Your task to perform on an android device: Show the shopping cart on ebay. Image 0: 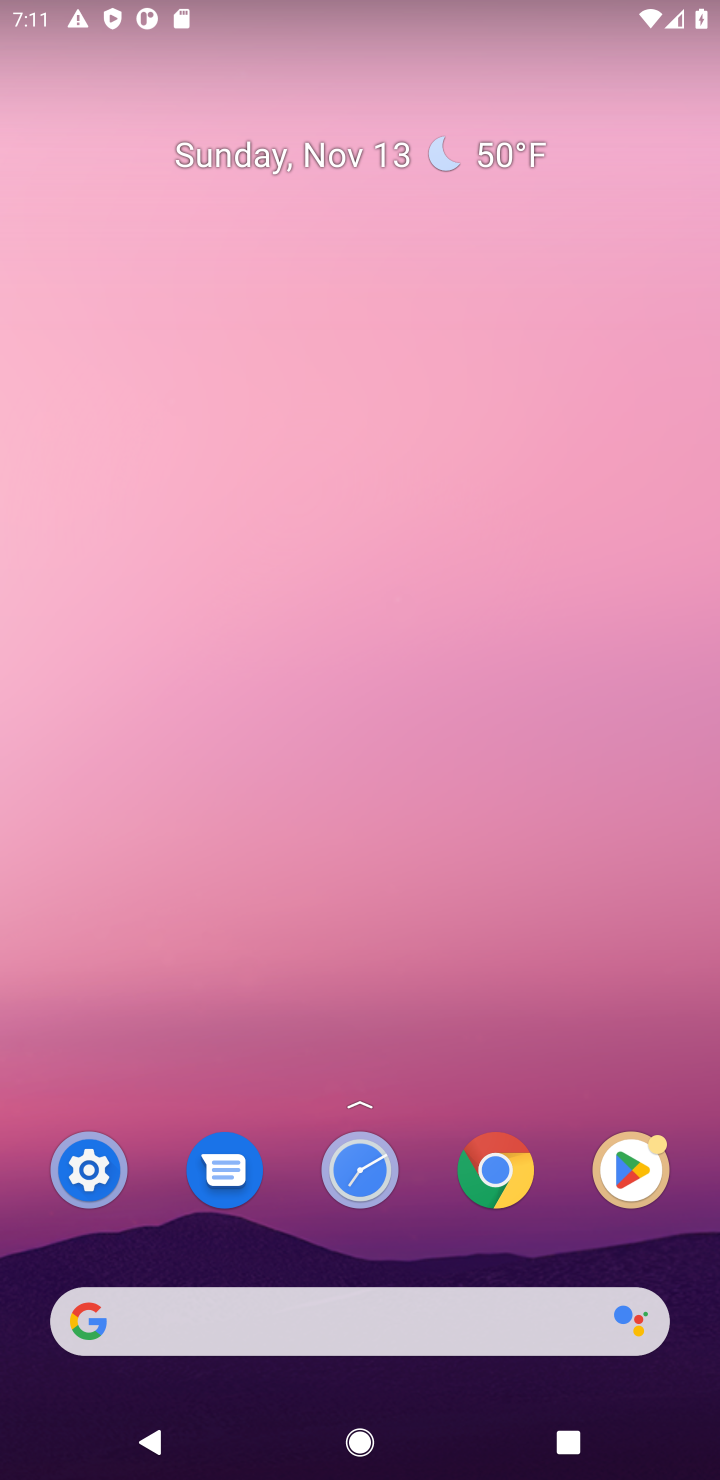
Step 0: click (252, 1293)
Your task to perform on an android device: Show the shopping cart on ebay. Image 1: 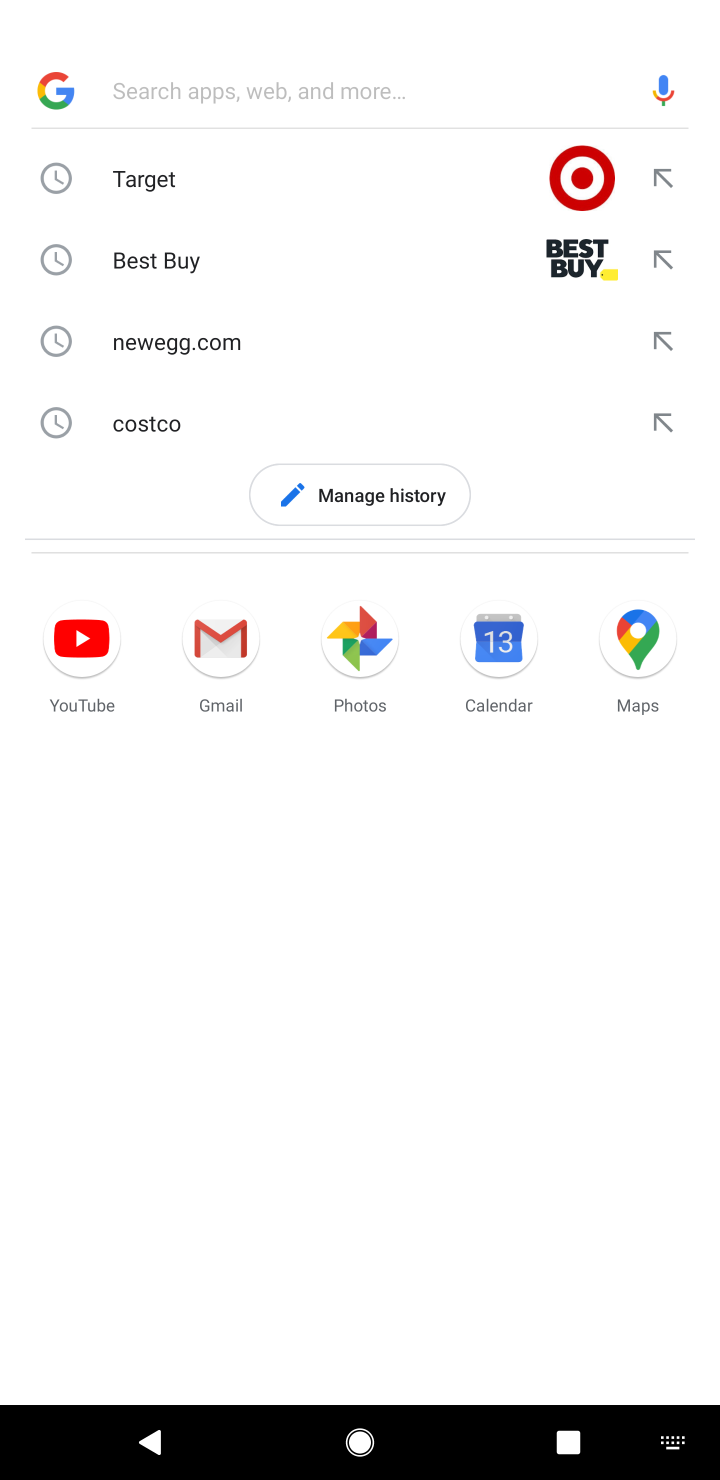
Step 1: type "ebay.com"
Your task to perform on an android device: Show the shopping cart on ebay. Image 2: 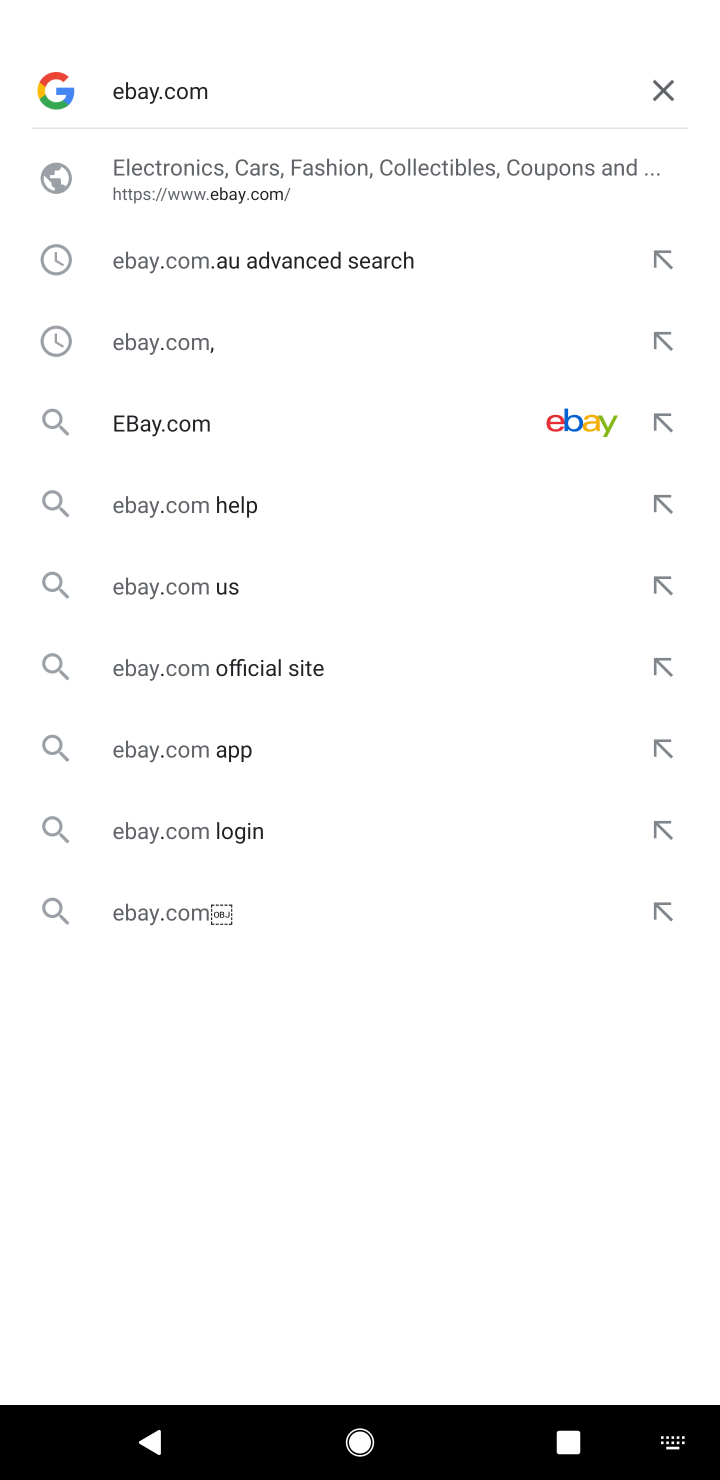
Step 2: click (315, 425)
Your task to perform on an android device: Show the shopping cart on ebay. Image 3: 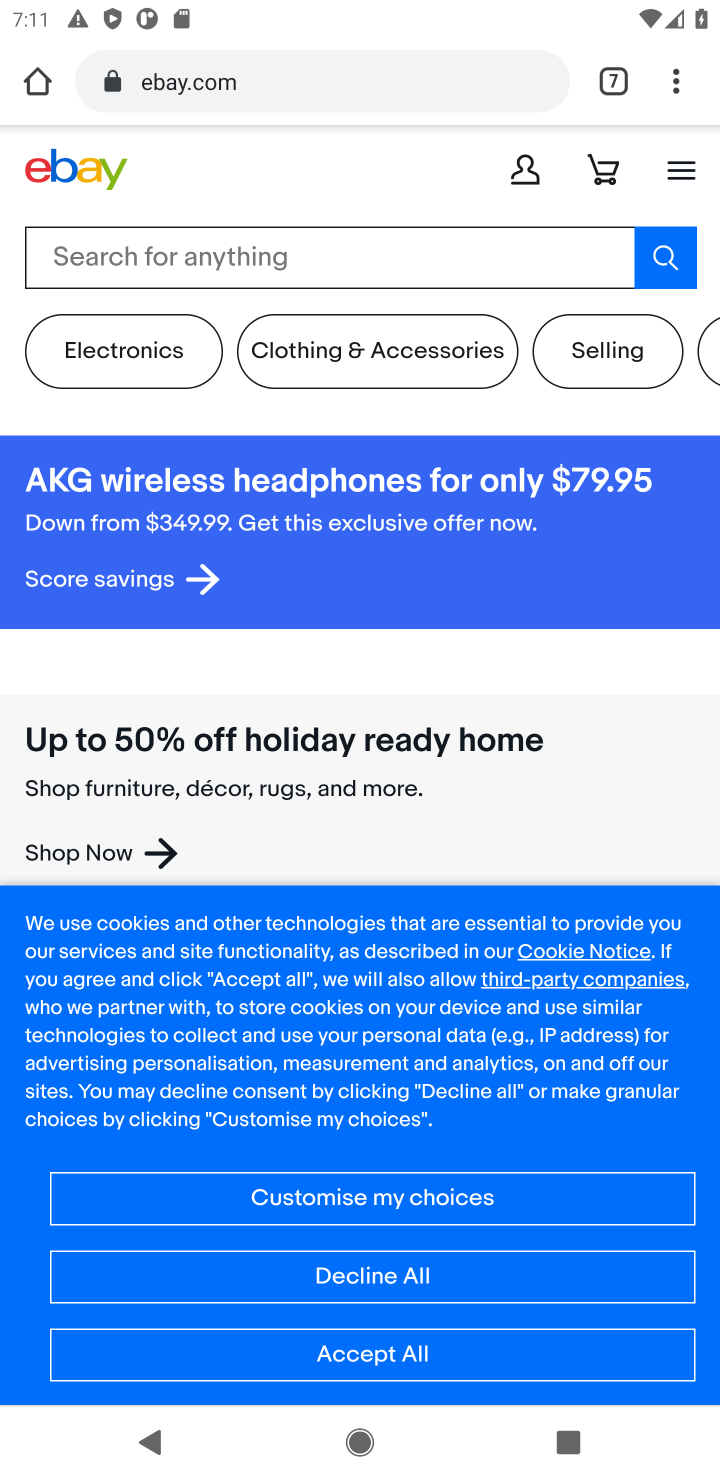
Step 3: task complete